Your task to perform on an android device: Open the phone app and click the voicemail tab. Image 0: 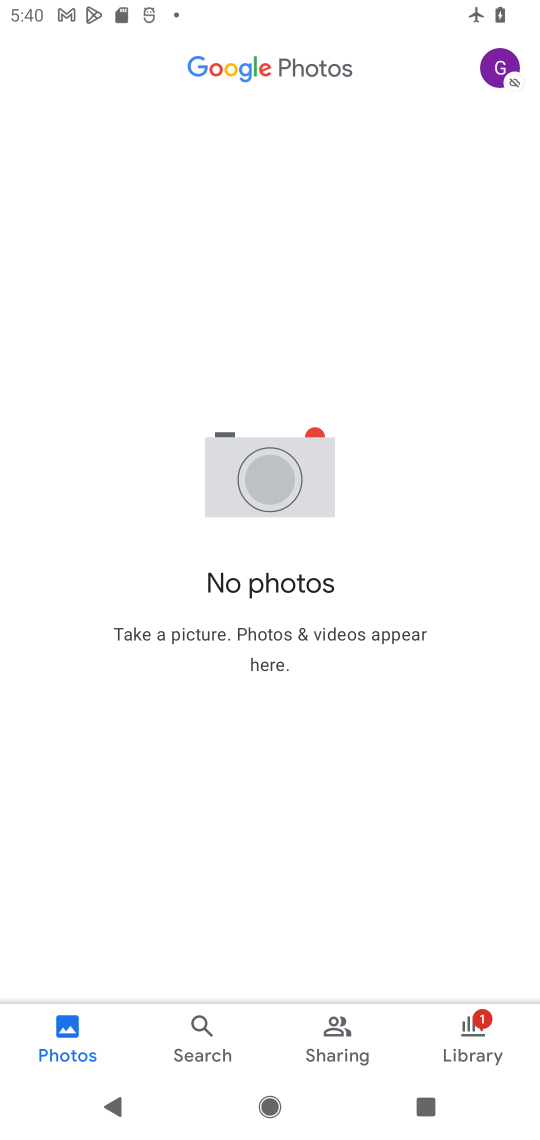
Step 0: press home button
Your task to perform on an android device: Open the phone app and click the voicemail tab. Image 1: 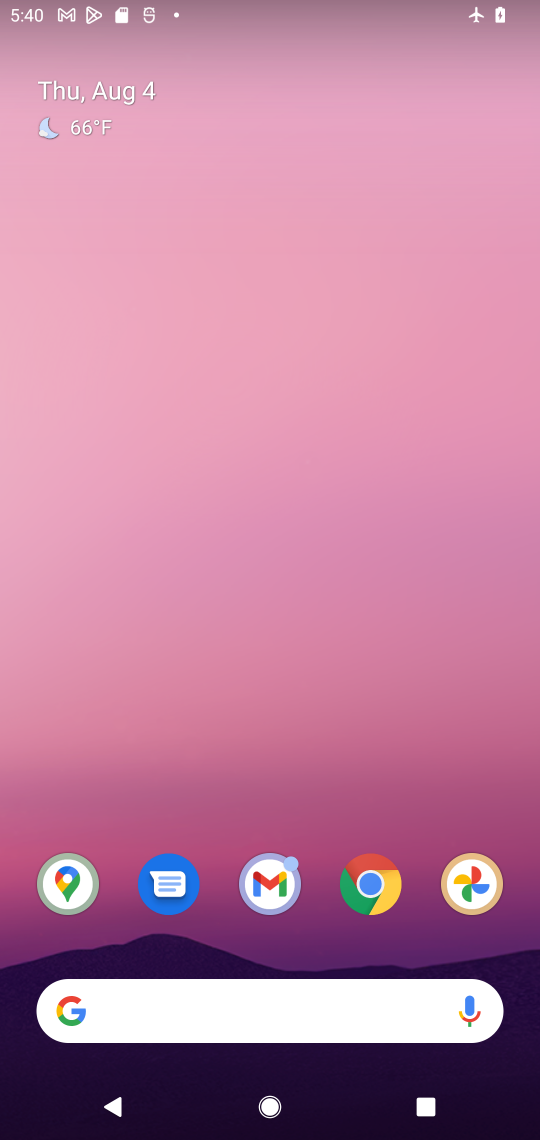
Step 1: drag from (318, 944) to (361, 140)
Your task to perform on an android device: Open the phone app and click the voicemail tab. Image 2: 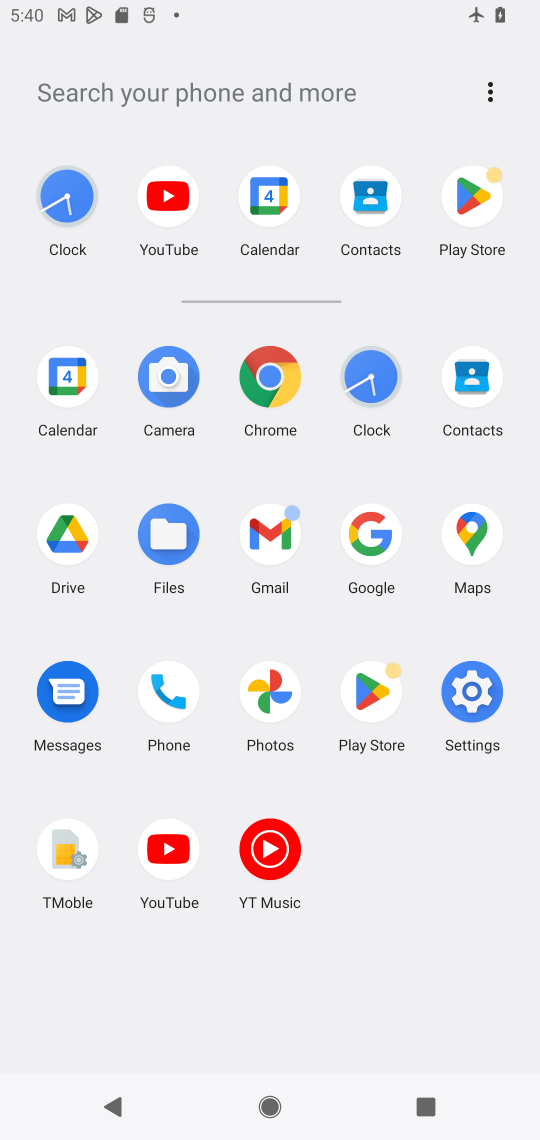
Step 2: click (164, 691)
Your task to perform on an android device: Open the phone app and click the voicemail tab. Image 3: 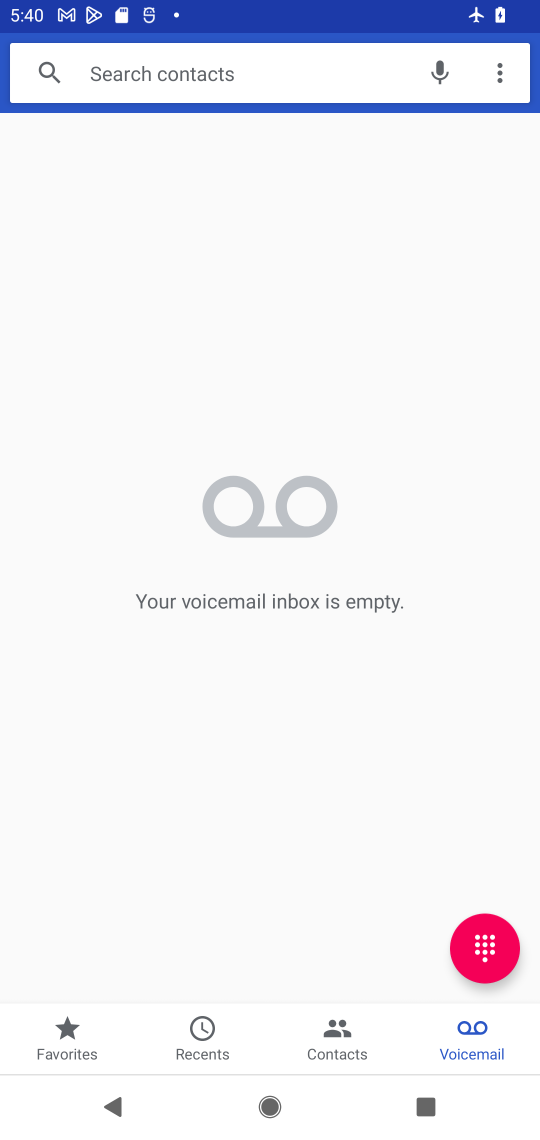
Step 3: click (499, 85)
Your task to perform on an android device: Open the phone app and click the voicemail tab. Image 4: 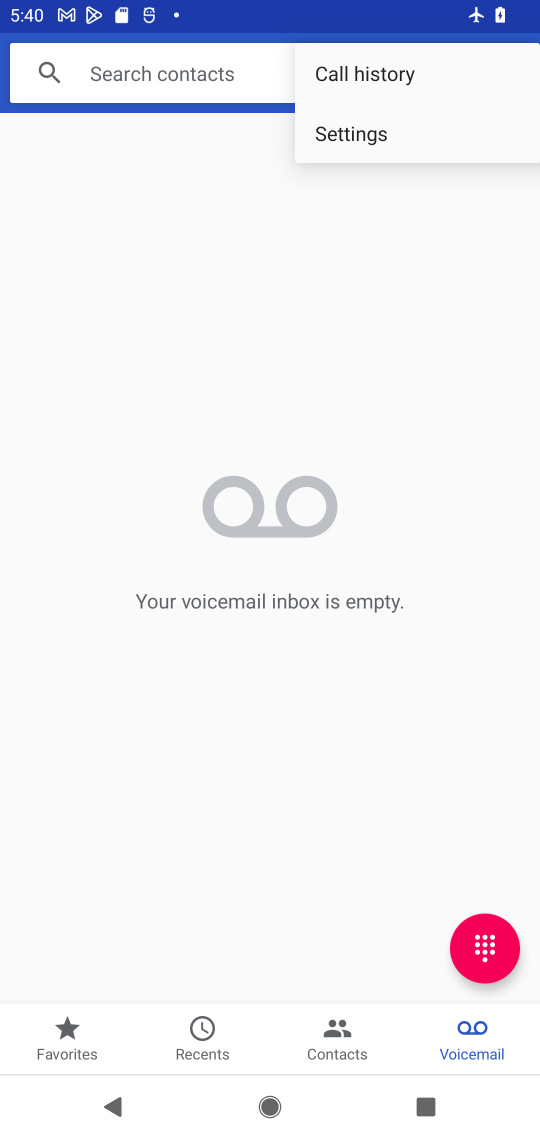
Step 4: click (481, 1037)
Your task to perform on an android device: Open the phone app and click the voicemail tab. Image 5: 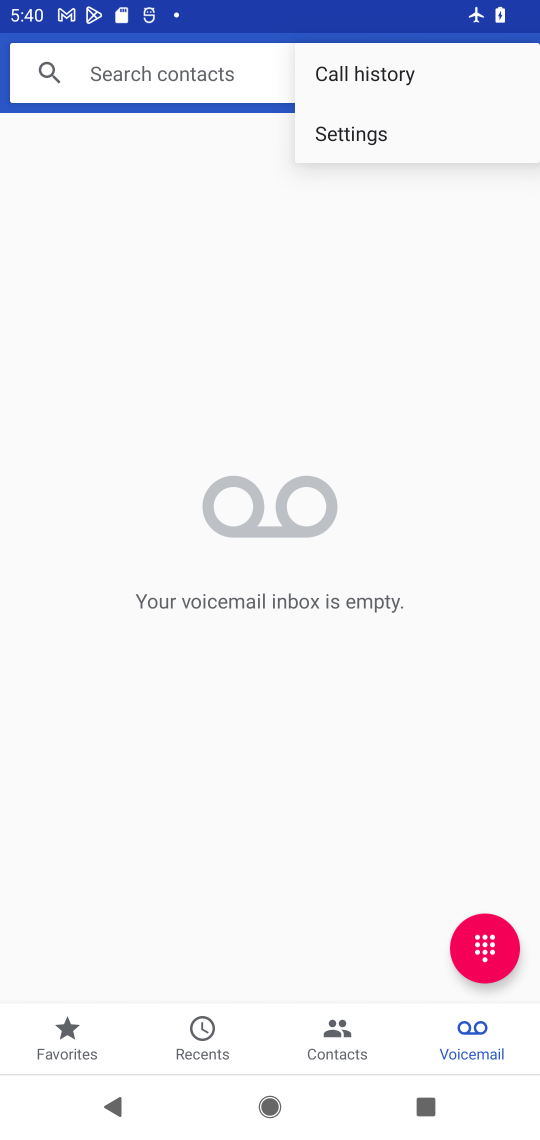
Step 5: click (481, 1037)
Your task to perform on an android device: Open the phone app and click the voicemail tab. Image 6: 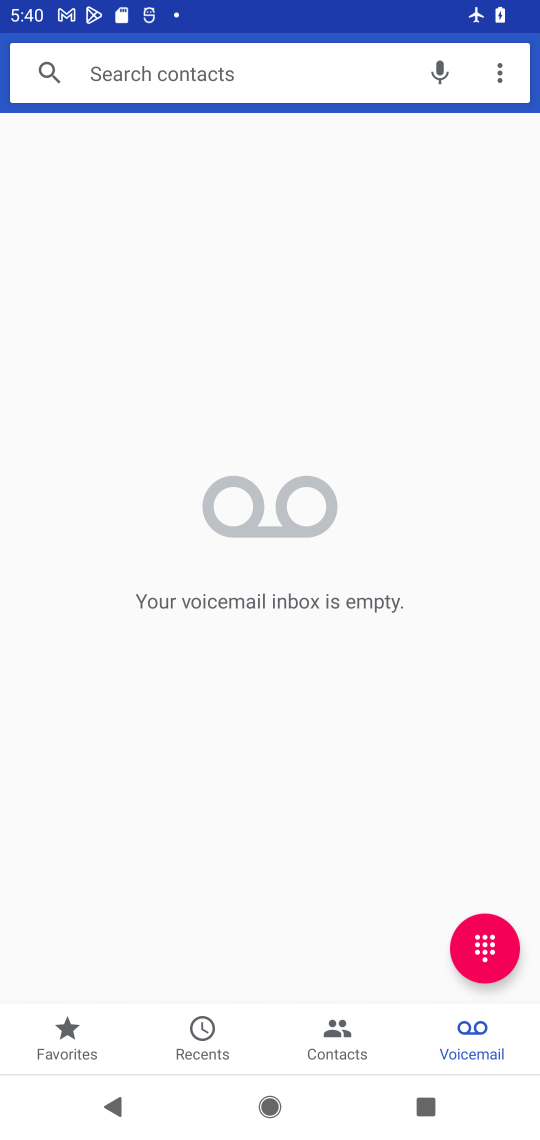
Step 6: task complete